Your task to perform on an android device: Show me popular videos on Youtube Image 0: 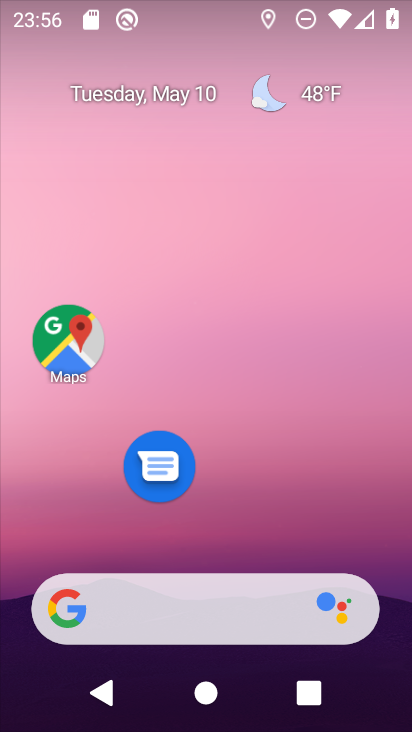
Step 0: drag from (285, 534) to (362, 14)
Your task to perform on an android device: Show me popular videos on Youtube Image 1: 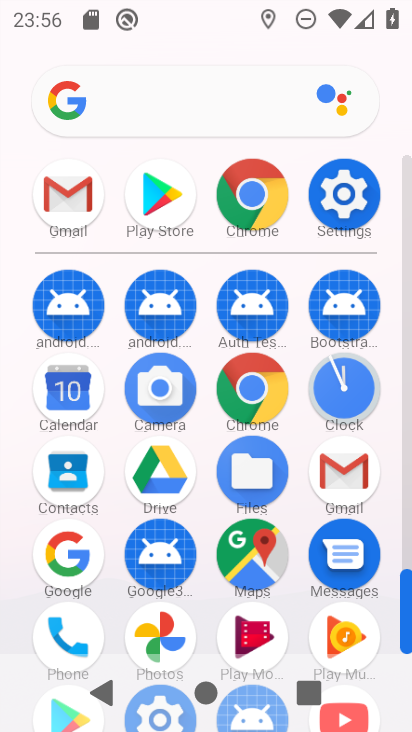
Step 1: drag from (297, 599) to (294, 356)
Your task to perform on an android device: Show me popular videos on Youtube Image 2: 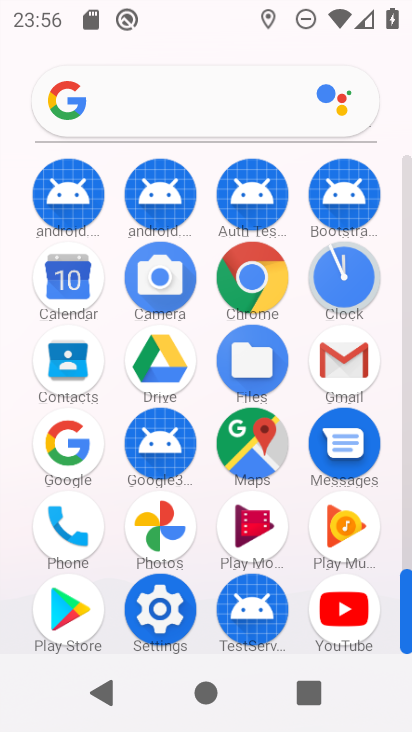
Step 2: click (350, 619)
Your task to perform on an android device: Show me popular videos on Youtube Image 3: 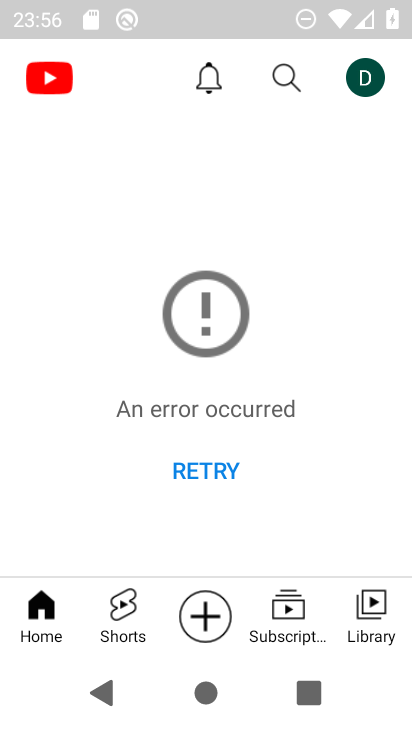
Step 3: click (50, 607)
Your task to perform on an android device: Show me popular videos on Youtube Image 4: 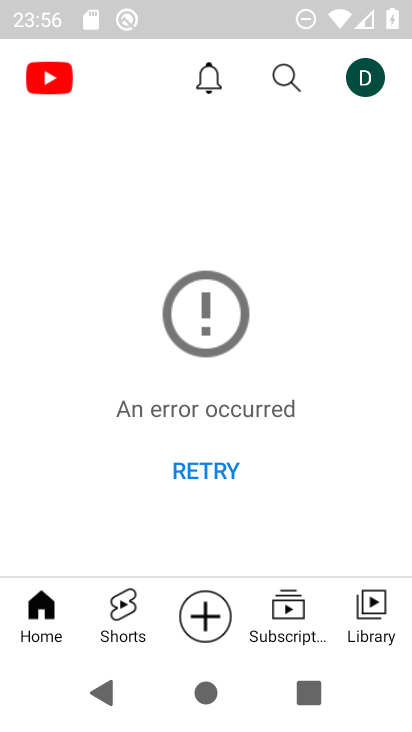
Step 4: click (208, 473)
Your task to perform on an android device: Show me popular videos on Youtube Image 5: 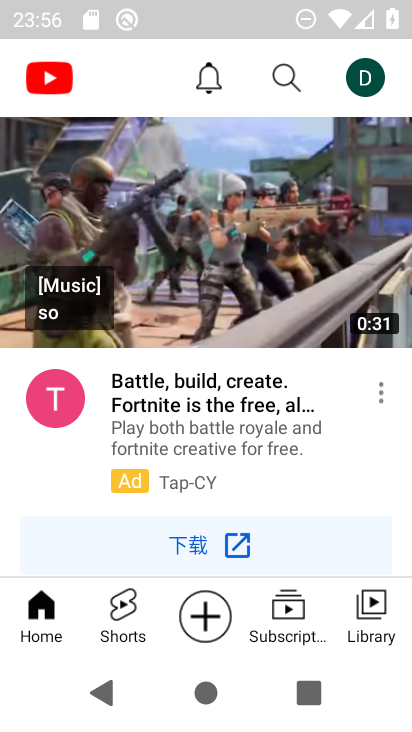
Step 5: drag from (111, 218) to (137, 612)
Your task to perform on an android device: Show me popular videos on Youtube Image 6: 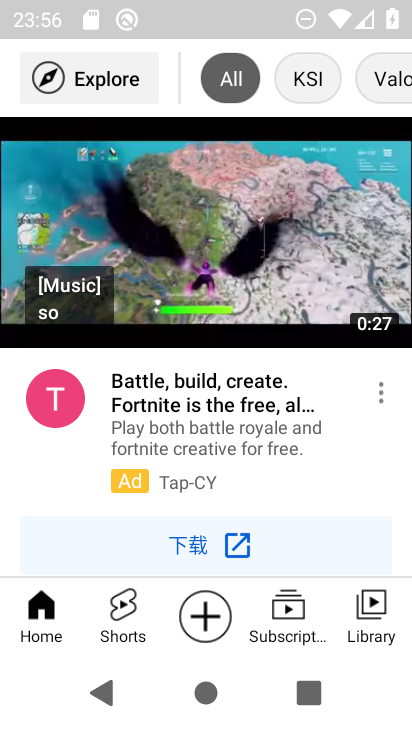
Step 6: click (99, 79)
Your task to perform on an android device: Show me popular videos on Youtube Image 7: 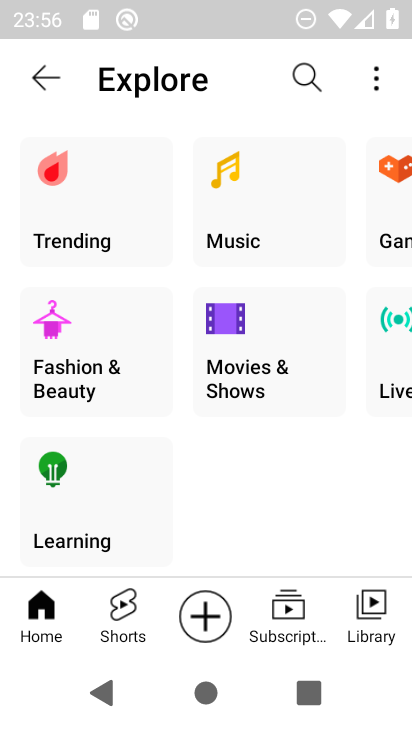
Step 7: click (44, 208)
Your task to perform on an android device: Show me popular videos on Youtube Image 8: 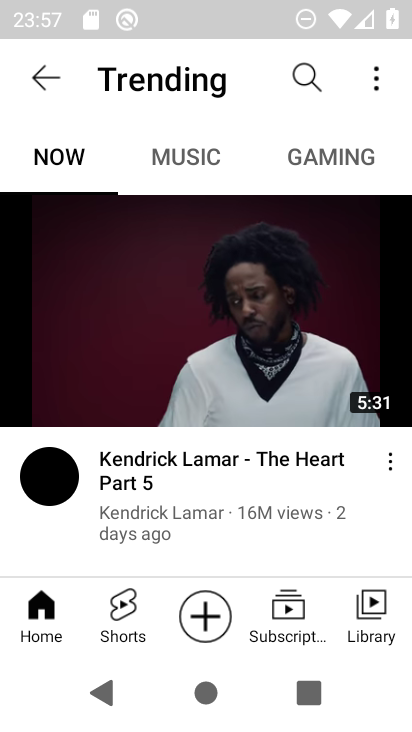
Step 8: task complete